Your task to perform on an android device: Open the Play Movies app and select the watchlist tab. Image 0: 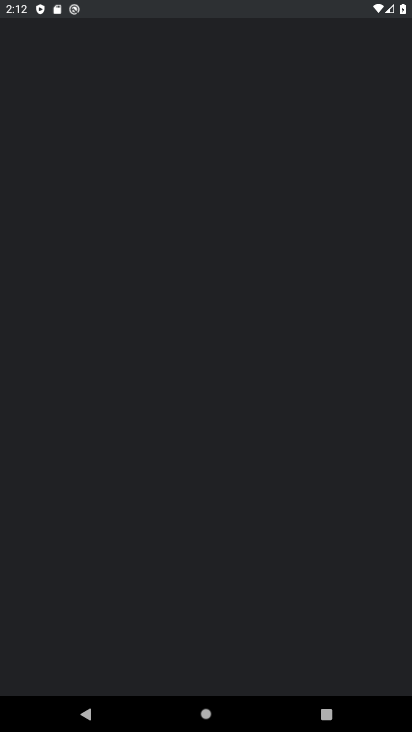
Step 0: drag from (239, 480) to (141, 139)
Your task to perform on an android device: Open the Play Movies app and select the watchlist tab. Image 1: 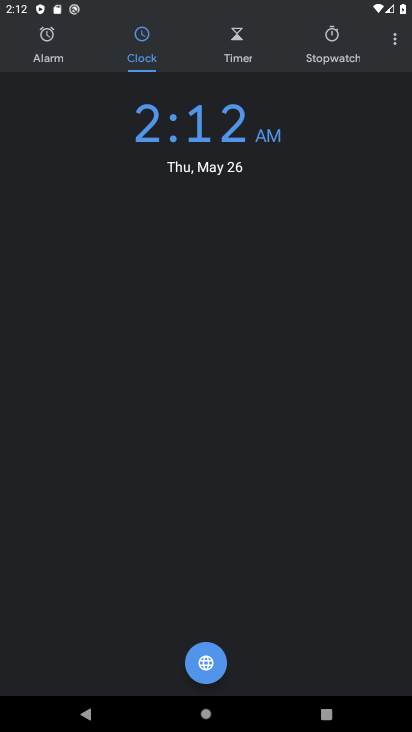
Step 1: press back button
Your task to perform on an android device: Open the Play Movies app and select the watchlist tab. Image 2: 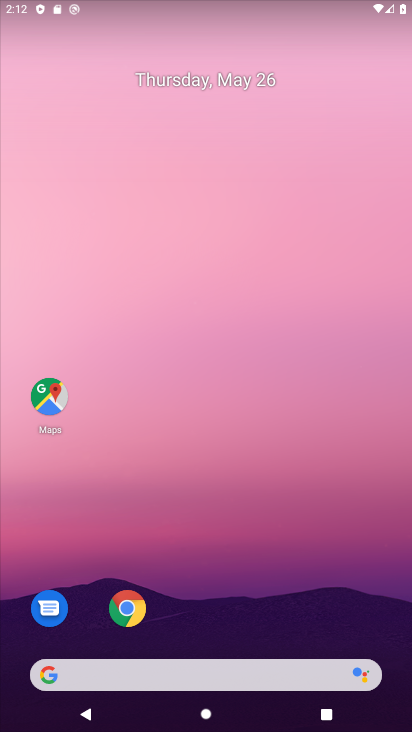
Step 2: click (236, 266)
Your task to perform on an android device: Open the Play Movies app and select the watchlist tab. Image 3: 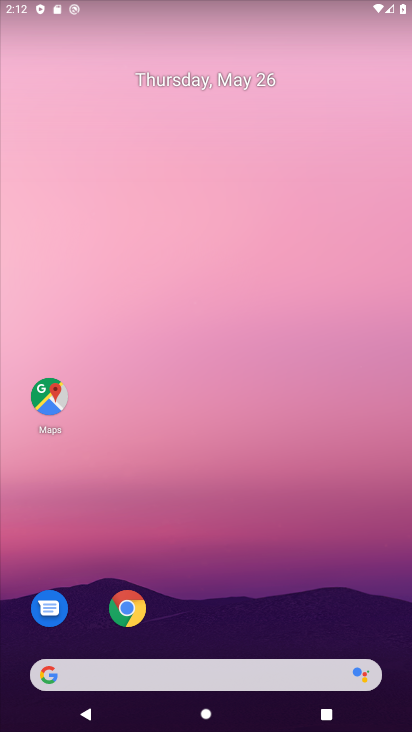
Step 3: drag from (240, 619) to (148, 180)
Your task to perform on an android device: Open the Play Movies app and select the watchlist tab. Image 4: 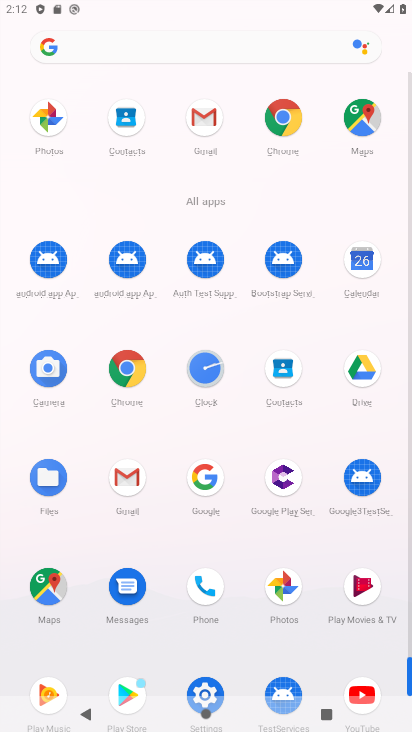
Step 4: drag from (332, 379) to (318, 235)
Your task to perform on an android device: Open the Play Movies app and select the watchlist tab. Image 5: 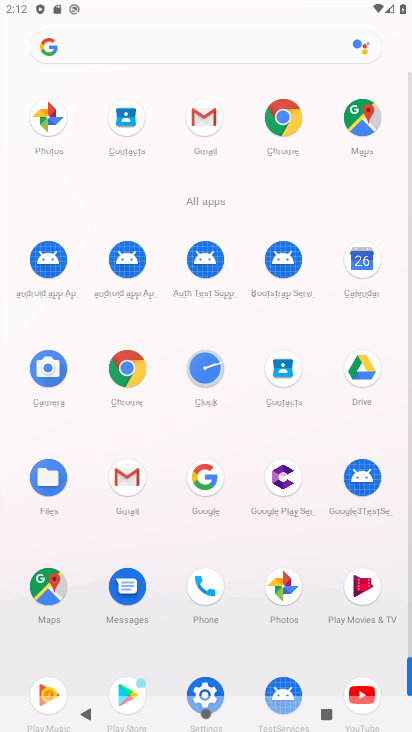
Step 5: drag from (289, 349) to (289, 155)
Your task to perform on an android device: Open the Play Movies app and select the watchlist tab. Image 6: 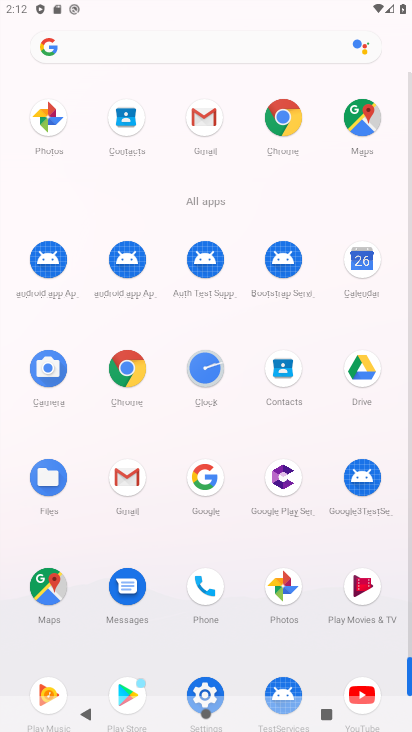
Step 6: drag from (139, 577) to (90, 171)
Your task to perform on an android device: Open the Play Movies app and select the watchlist tab. Image 7: 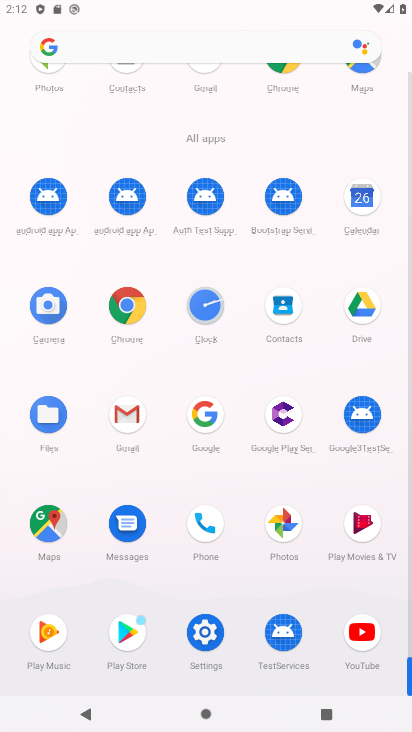
Step 7: click (361, 520)
Your task to perform on an android device: Open the Play Movies app and select the watchlist tab. Image 8: 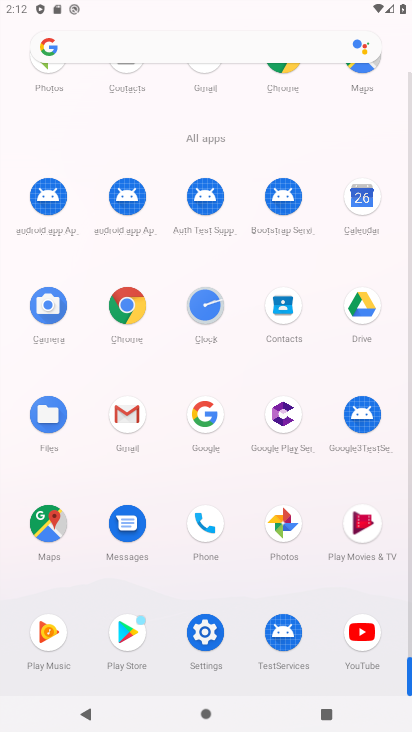
Step 8: click (361, 520)
Your task to perform on an android device: Open the Play Movies app and select the watchlist tab. Image 9: 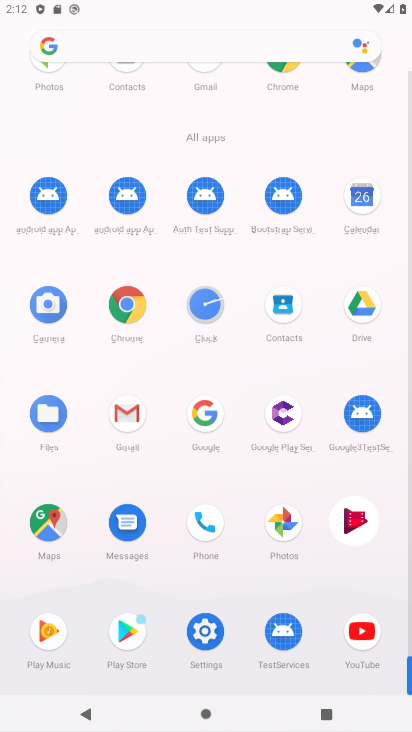
Step 9: click (361, 520)
Your task to perform on an android device: Open the Play Movies app and select the watchlist tab. Image 10: 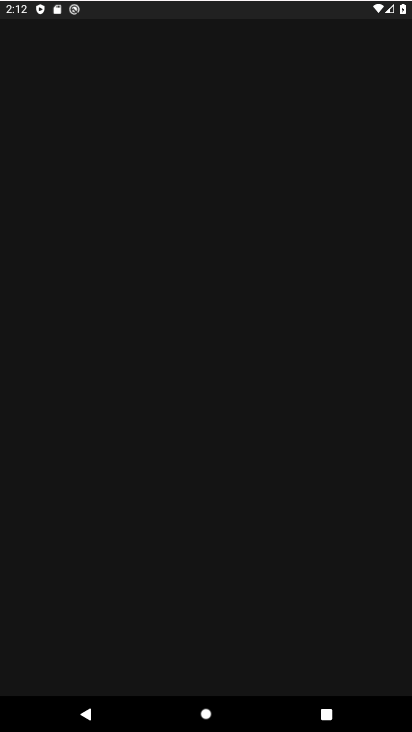
Step 10: click (361, 520)
Your task to perform on an android device: Open the Play Movies app and select the watchlist tab. Image 11: 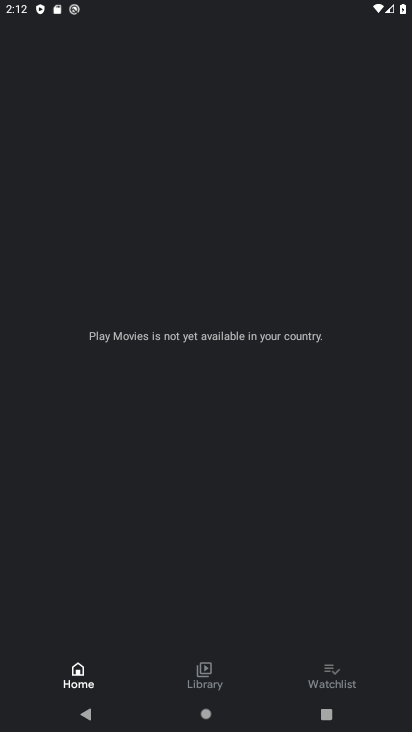
Step 11: click (337, 674)
Your task to perform on an android device: Open the Play Movies app and select the watchlist tab. Image 12: 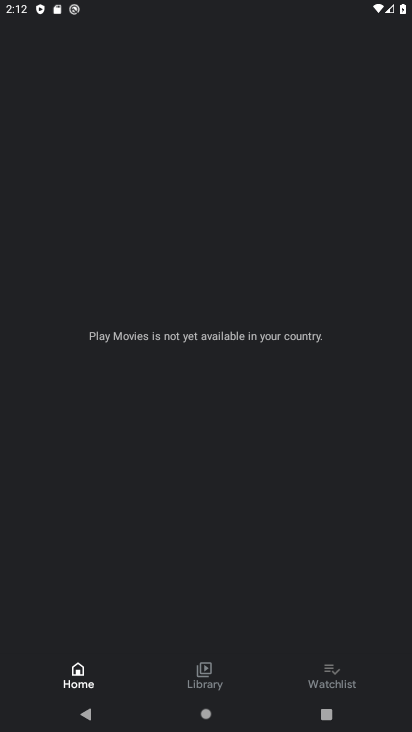
Step 12: click (335, 676)
Your task to perform on an android device: Open the Play Movies app and select the watchlist tab. Image 13: 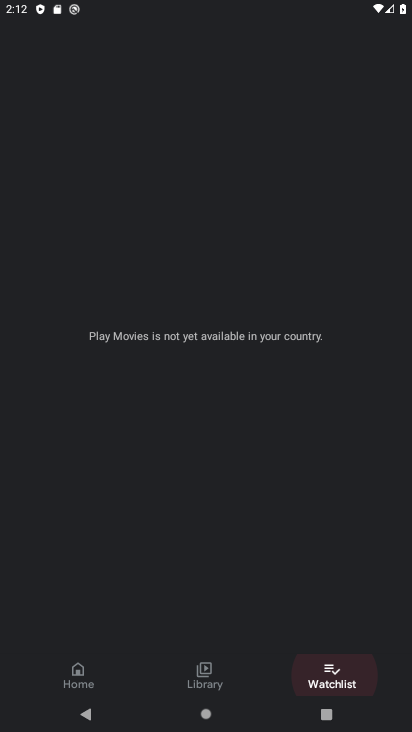
Step 13: click (335, 677)
Your task to perform on an android device: Open the Play Movies app and select the watchlist tab. Image 14: 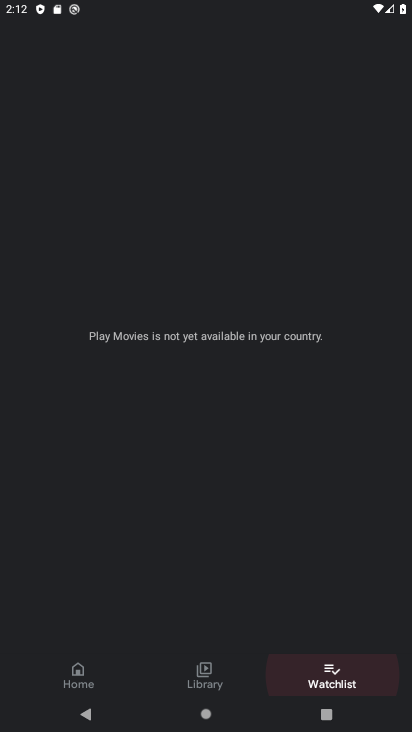
Step 14: click (335, 677)
Your task to perform on an android device: Open the Play Movies app and select the watchlist tab. Image 15: 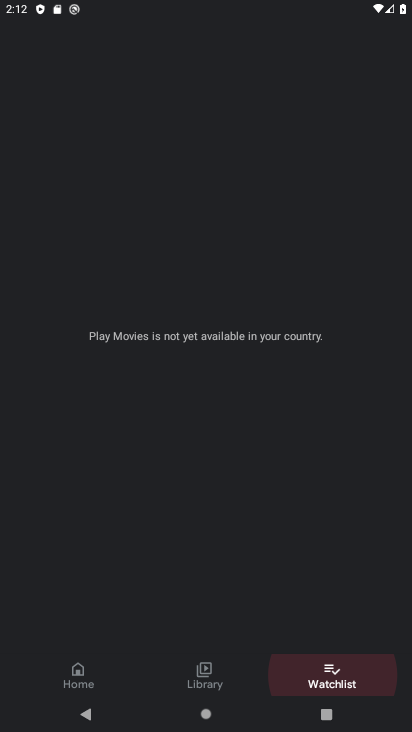
Step 15: click (335, 678)
Your task to perform on an android device: Open the Play Movies app and select the watchlist tab. Image 16: 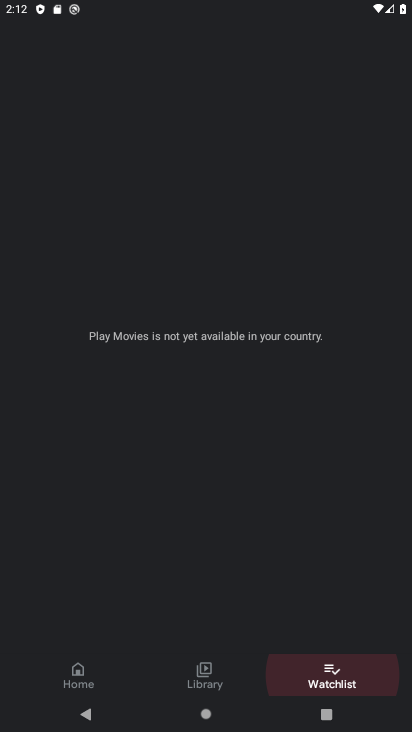
Step 16: click (341, 675)
Your task to perform on an android device: Open the Play Movies app and select the watchlist tab. Image 17: 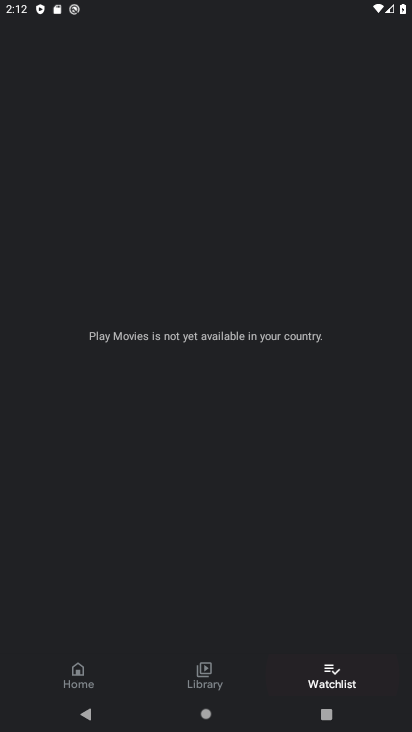
Step 17: click (354, 674)
Your task to perform on an android device: Open the Play Movies app and select the watchlist tab. Image 18: 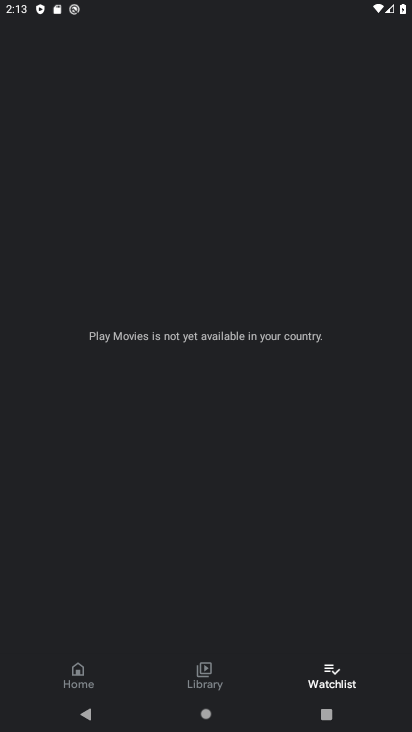
Step 18: click (331, 680)
Your task to perform on an android device: Open the Play Movies app and select the watchlist tab. Image 19: 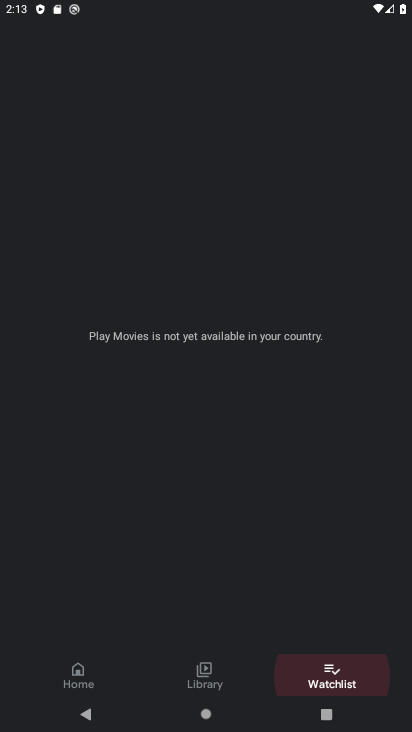
Step 19: click (331, 679)
Your task to perform on an android device: Open the Play Movies app and select the watchlist tab. Image 20: 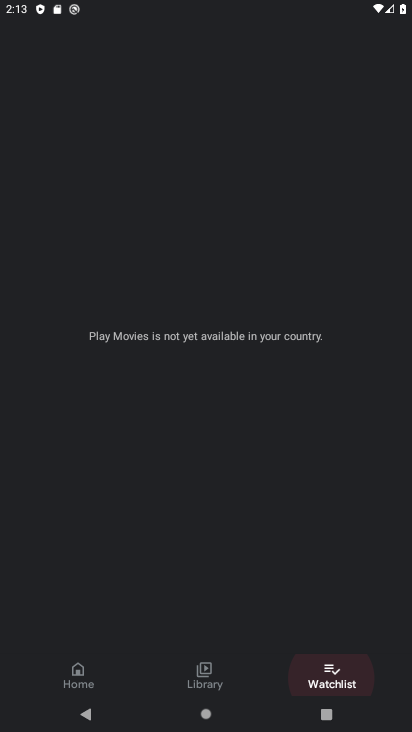
Step 20: click (330, 678)
Your task to perform on an android device: Open the Play Movies app and select the watchlist tab. Image 21: 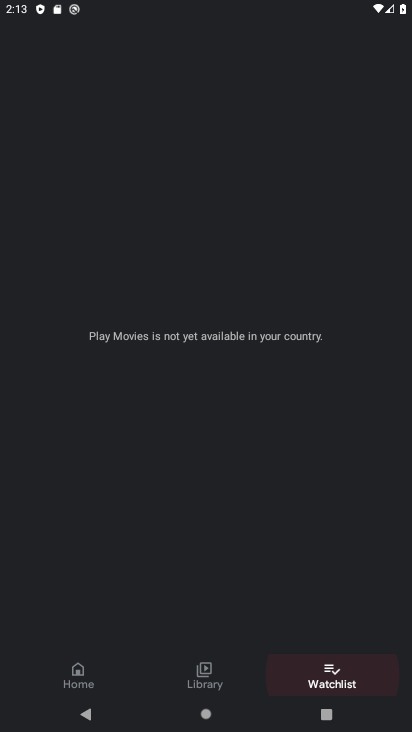
Step 21: click (329, 675)
Your task to perform on an android device: Open the Play Movies app and select the watchlist tab. Image 22: 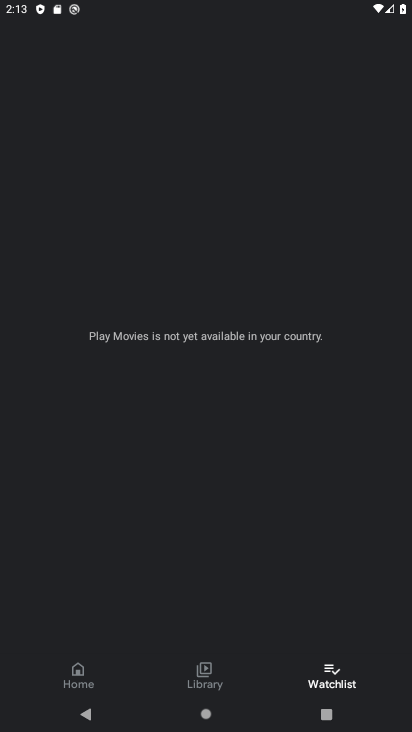
Step 22: click (328, 682)
Your task to perform on an android device: Open the Play Movies app and select the watchlist tab. Image 23: 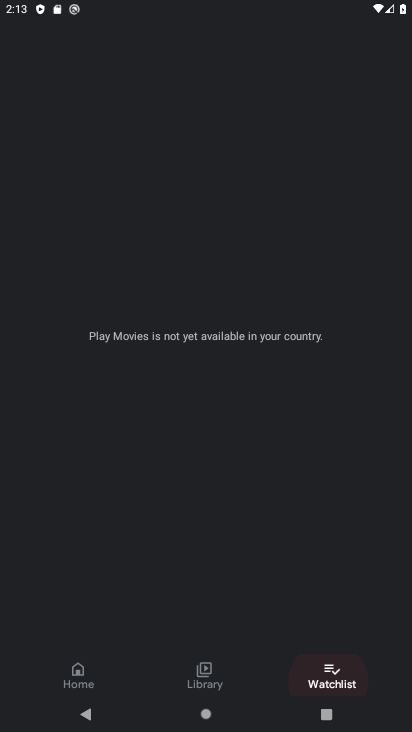
Step 23: click (328, 682)
Your task to perform on an android device: Open the Play Movies app and select the watchlist tab. Image 24: 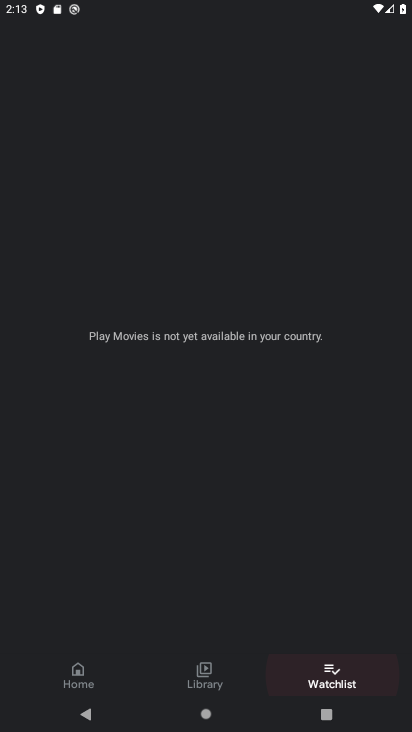
Step 24: click (329, 681)
Your task to perform on an android device: Open the Play Movies app and select the watchlist tab. Image 25: 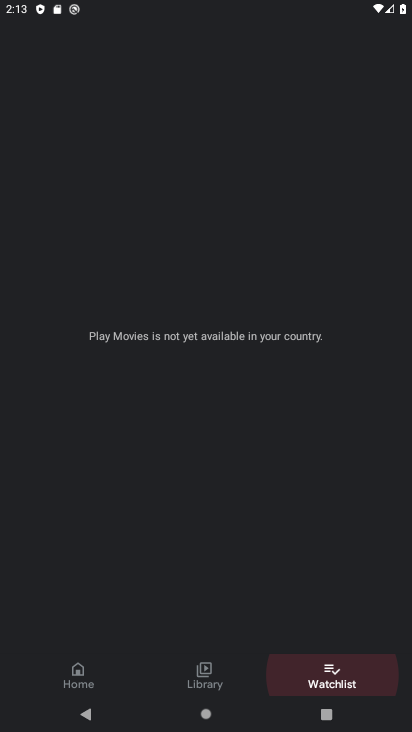
Step 25: click (329, 681)
Your task to perform on an android device: Open the Play Movies app and select the watchlist tab. Image 26: 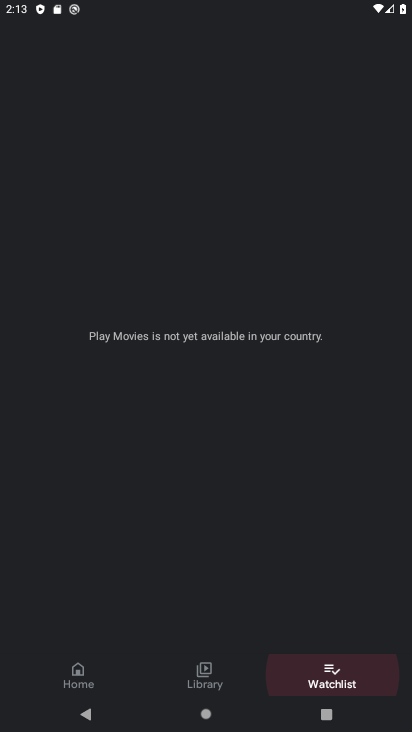
Step 26: click (329, 681)
Your task to perform on an android device: Open the Play Movies app and select the watchlist tab. Image 27: 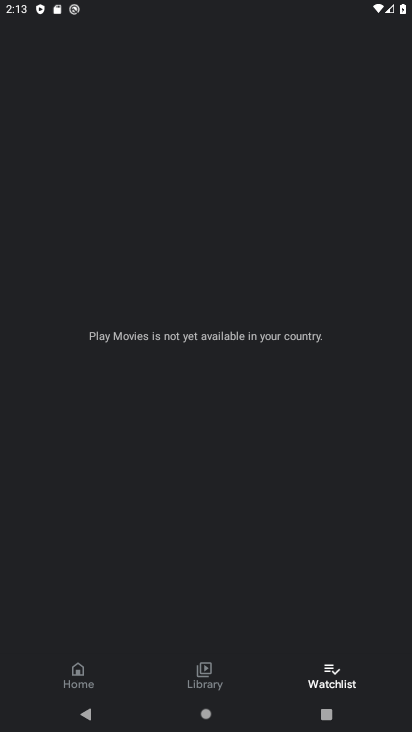
Step 27: task complete